Your task to perform on an android device: What's the weather going to be tomorrow? Image 0: 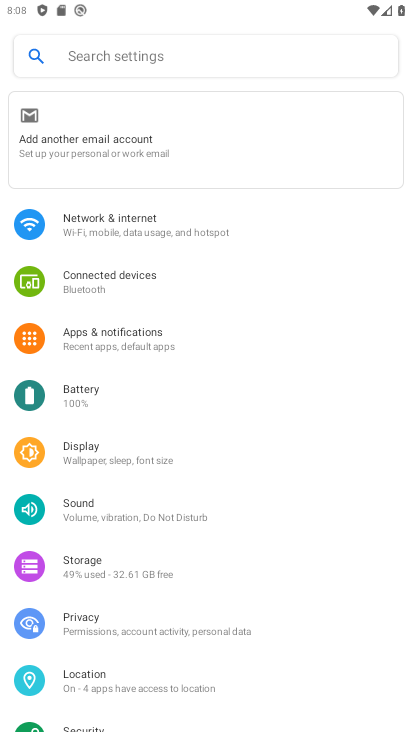
Step 0: press home button
Your task to perform on an android device: What's the weather going to be tomorrow? Image 1: 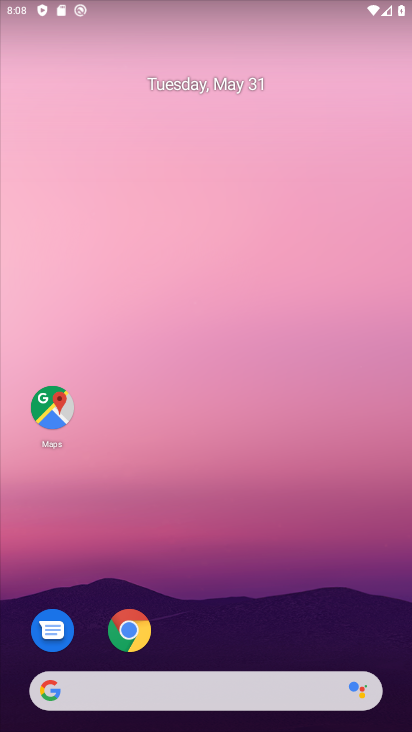
Step 1: click (265, 692)
Your task to perform on an android device: What's the weather going to be tomorrow? Image 2: 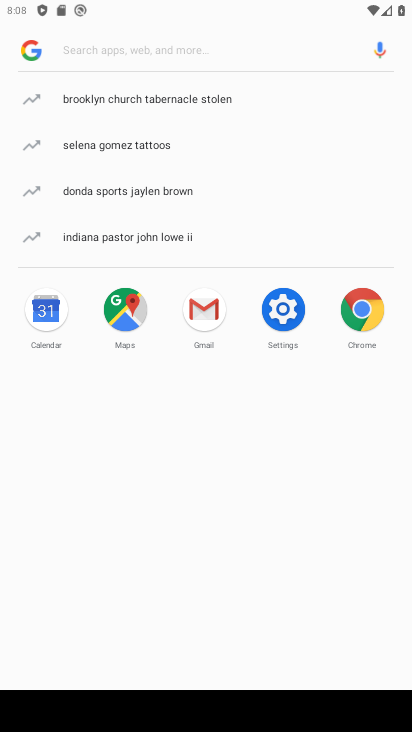
Step 2: type "What's the weather going to be tomorrow?"
Your task to perform on an android device: What's the weather going to be tomorrow? Image 3: 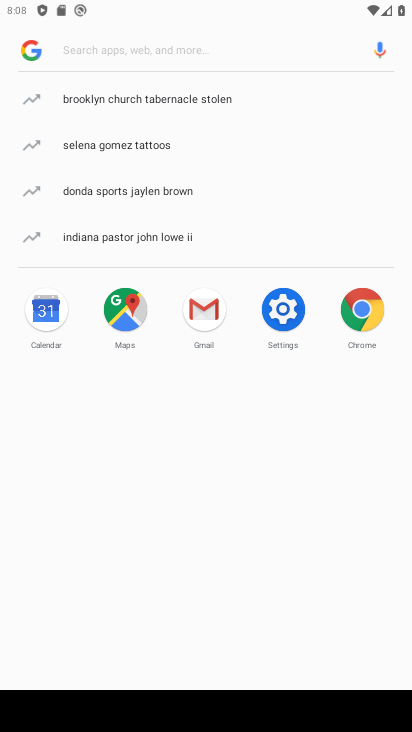
Step 3: click (206, 51)
Your task to perform on an android device: What's the weather going to be tomorrow? Image 4: 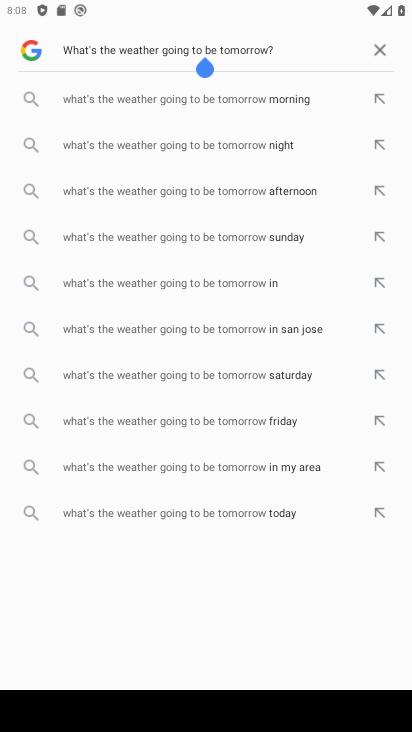
Step 4: click (178, 86)
Your task to perform on an android device: What's the weather going to be tomorrow? Image 5: 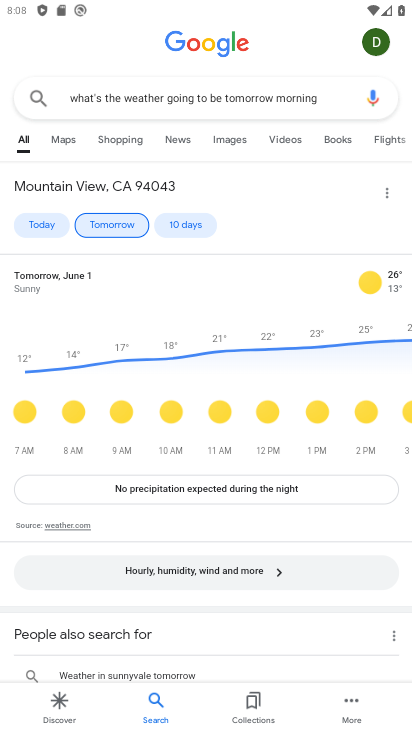
Step 5: task complete